Your task to perform on an android device: toggle priority inbox in the gmail app Image 0: 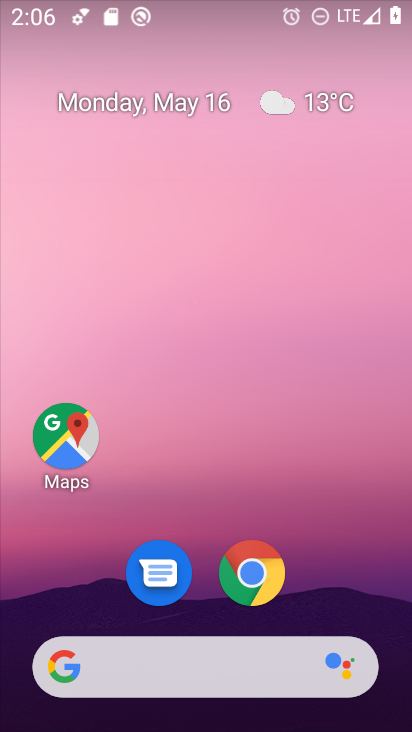
Step 0: drag from (212, 651) to (152, 103)
Your task to perform on an android device: toggle priority inbox in the gmail app Image 1: 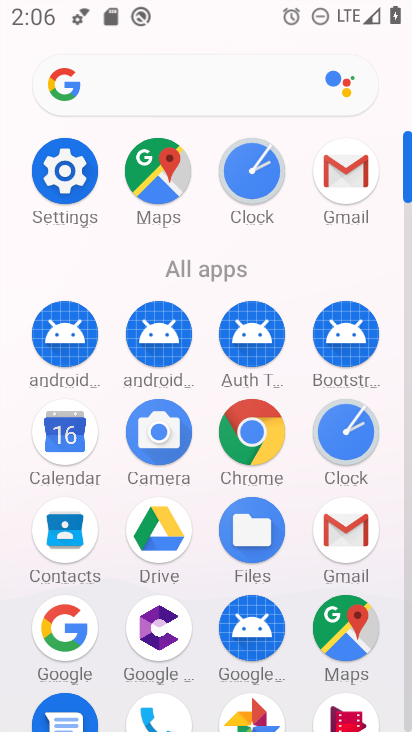
Step 1: click (348, 178)
Your task to perform on an android device: toggle priority inbox in the gmail app Image 2: 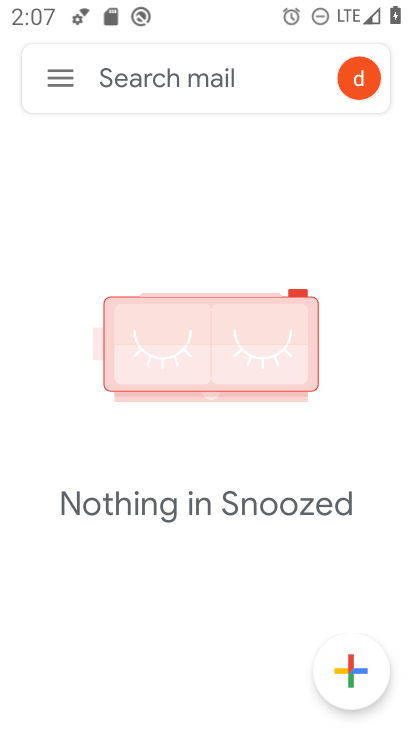
Step 2: click (63, 74)
Your task to perform on an android device: toggle priority inbox in the gmail app Image 3: 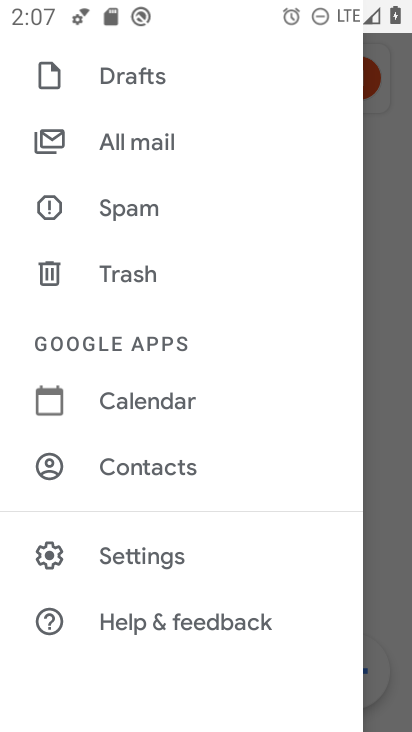
Step 3: click (139, 557)
Your task to perform on an android device: toggle priority inbox in the gmail app Image 4: 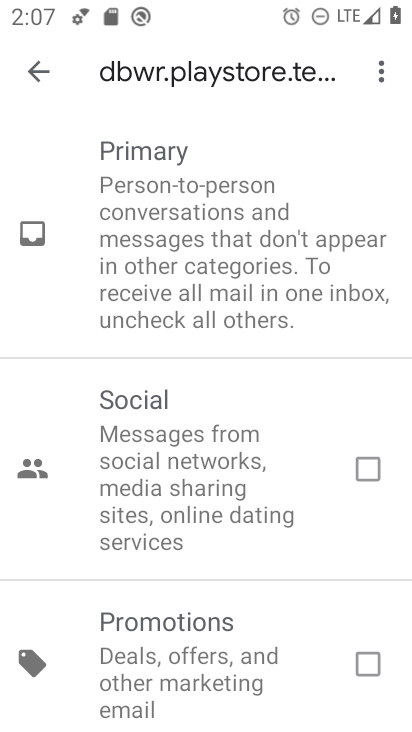
Step 4: click (36, 67)
Your task to perform on an android device: toggle priority inbox in the gmail app Image 5: 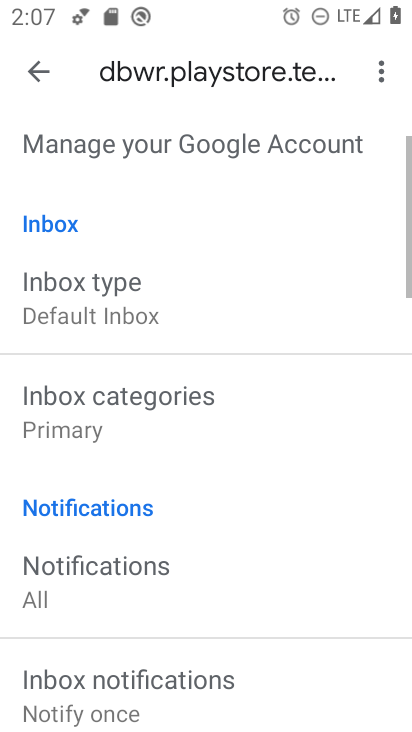
Step 5: click (102, 318)
Your task to perform on an android device: toggle priority inbox in the gmail app Image 6: 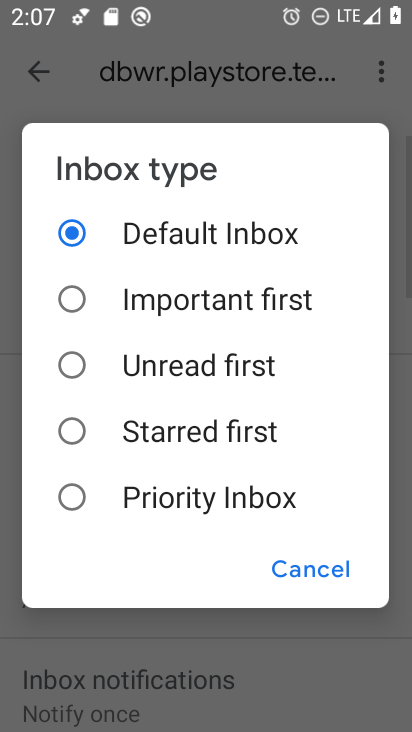
Step 6: click (164, 496)
Your task to perform on an android device: toggle priority inbox in the gmail app Image 7: 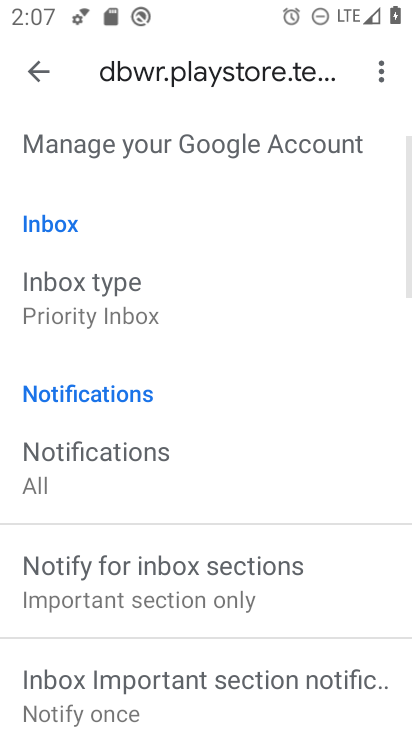
Step 7: task complete